Your task to perform on an android device: turn off location history Image 0: 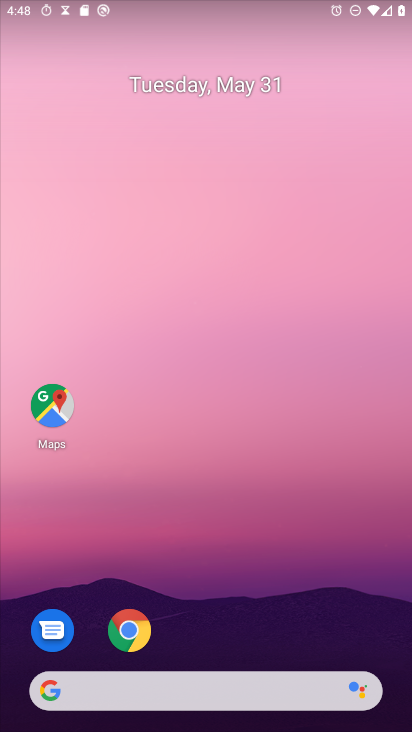
Step 0: drag from (302, 662) to (357, 0)
Your task to perform on an android device: turn off location history Image 1: 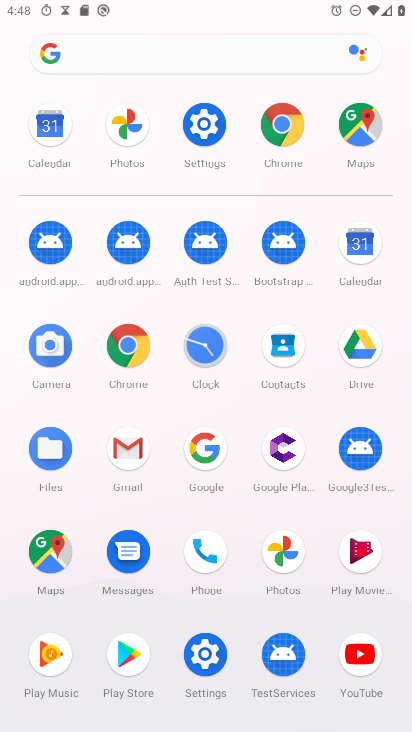
Step 1: click (201, 112)
Your task to perform on an android device: turn off location history Image 2: 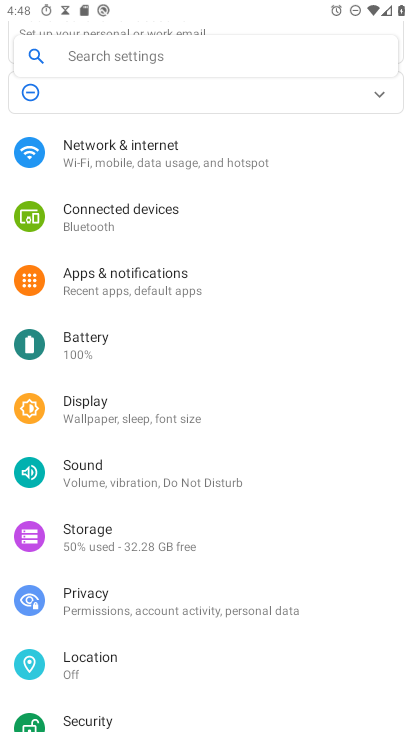
Step 2: drag from (226, 690) to (235, 505)
Your task to perform on an android device: turn off location history Image 3: 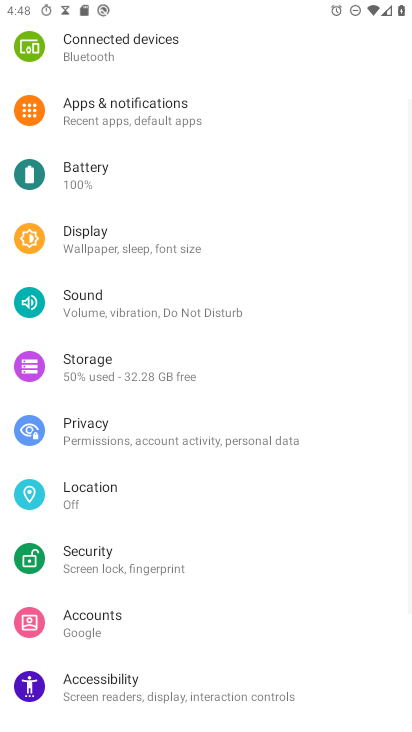
Step 3: click (117, 504)
Your task to perform on an android device: turn off location history Image 4: 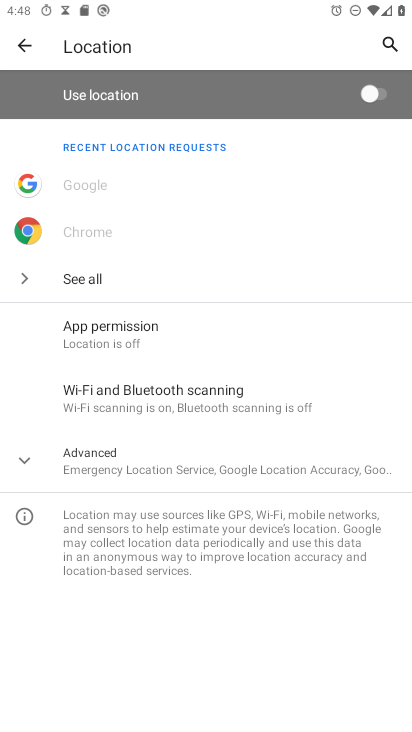
Step 4: click (83, 449)
Your task to perform on an android device: turn off location history Image 5: 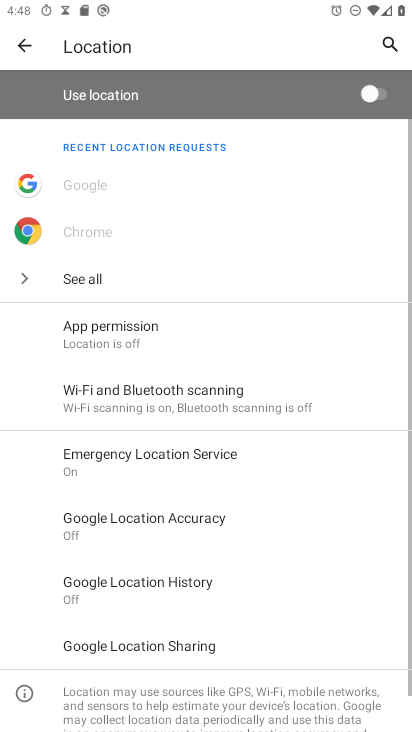
Step 5: click (197, 578)
Your task to perform on an android device: turn off location history Image 6: 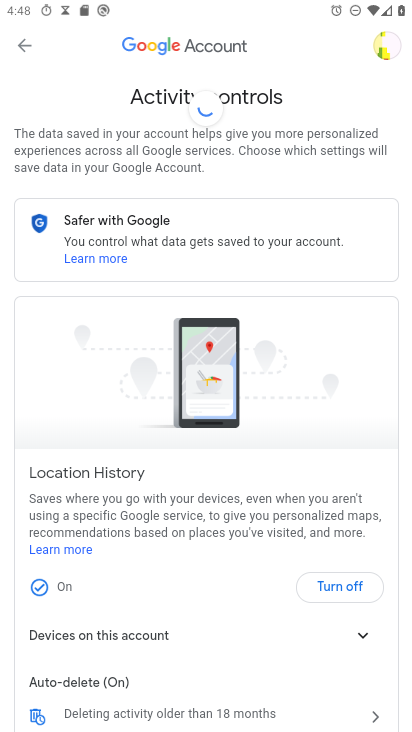
Step 6: click (330, 583)
Your task to perform on an android device: turn off location history Image 7: 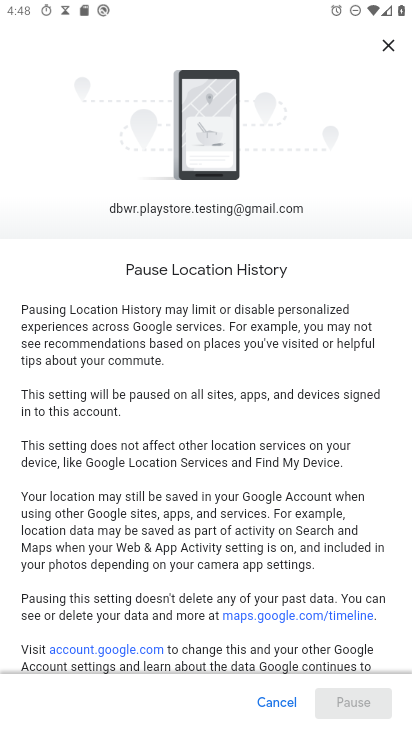
Step 7: drag from (322, 638) to (330, 83)
Your task to perform on an android device: turn off location history Image 8: 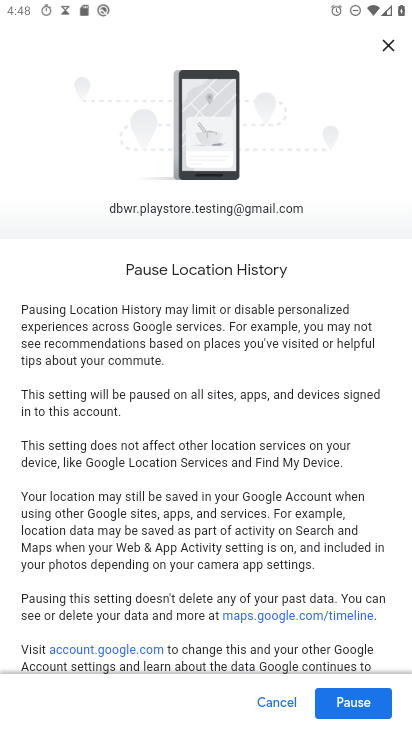
Step 8: drag from (286, 510) to (258, 0)
Your task to perform on an android device: turn off location history Image 9: 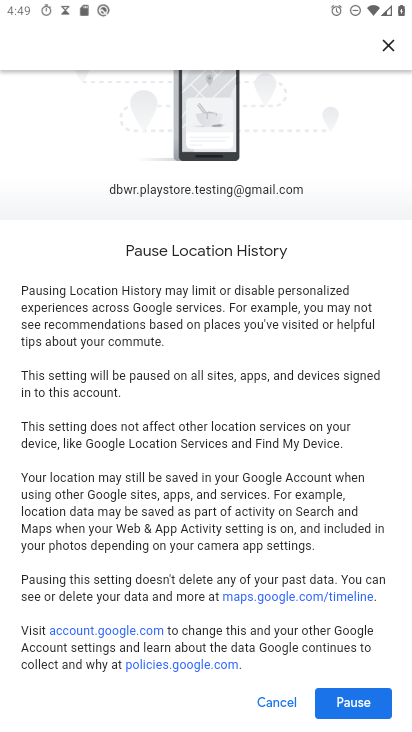
Step 9: click (371, 702)
Your task to perform on an android device: turn off location history Image 10: 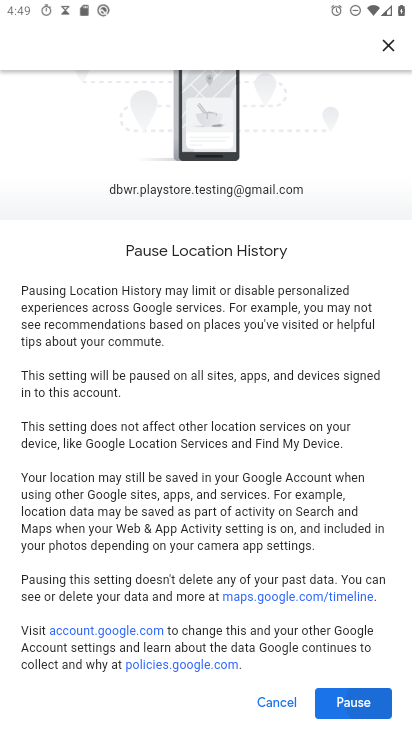
Step 10: click (371, 702)
Your task to perform on an android device: turn off location history Image 11: 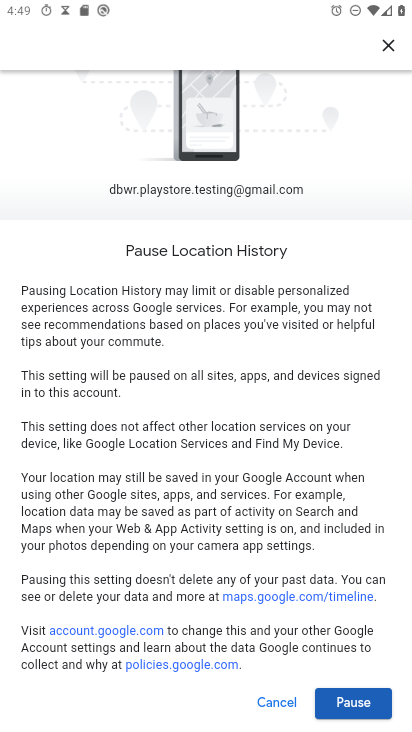
Step 11: click (369, 708)
Your task to perform on an android device: turn off location history Image 12: 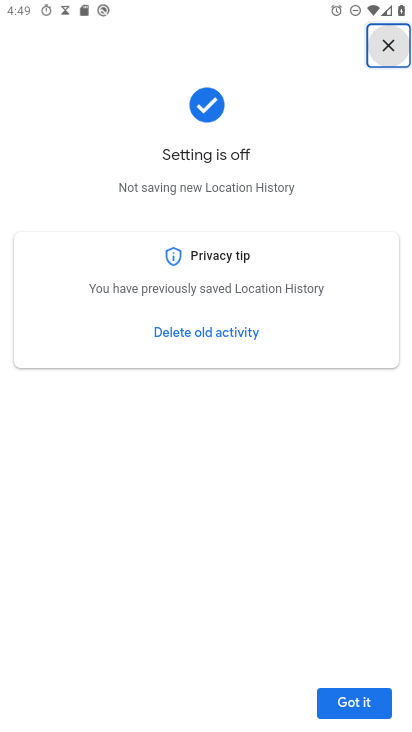
Step 12: task complete